Your task to perform on an android device: Check the news Image 0: 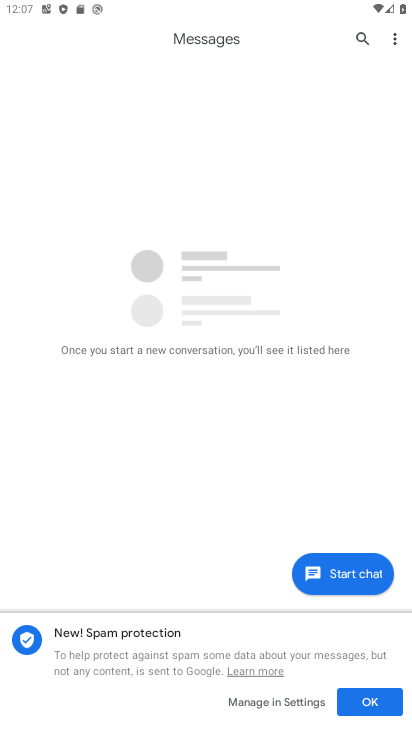
Step 0: press back button
Your task to perform on an android device: Check the news Image 1: 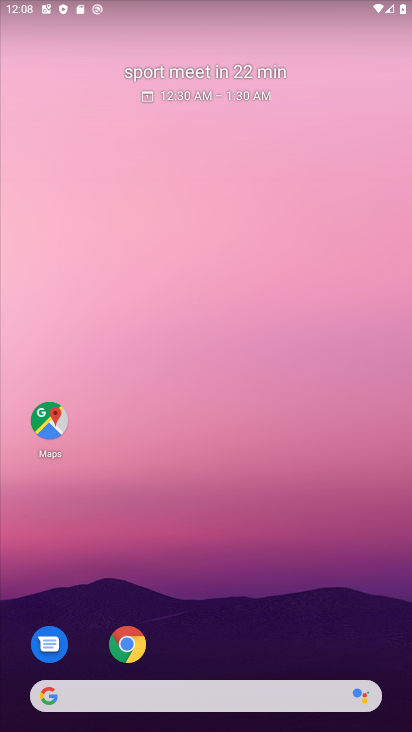
Step 1: click (176, 693)
Your task to perform on an android device: Check the news Image 2: 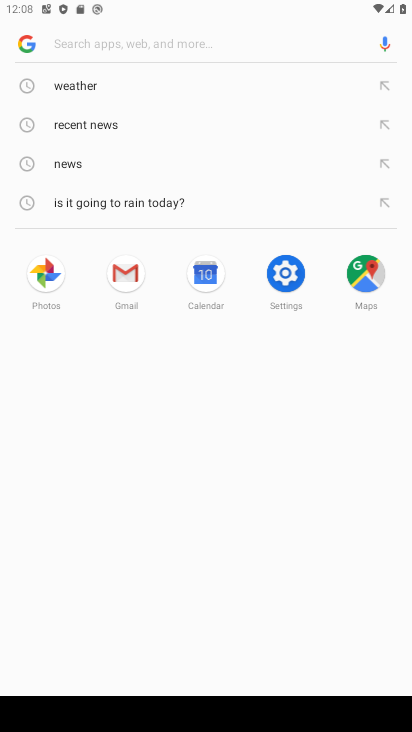
Step 2: click (80, 122)
Your task to perform on an android device: Check the news Image 3: 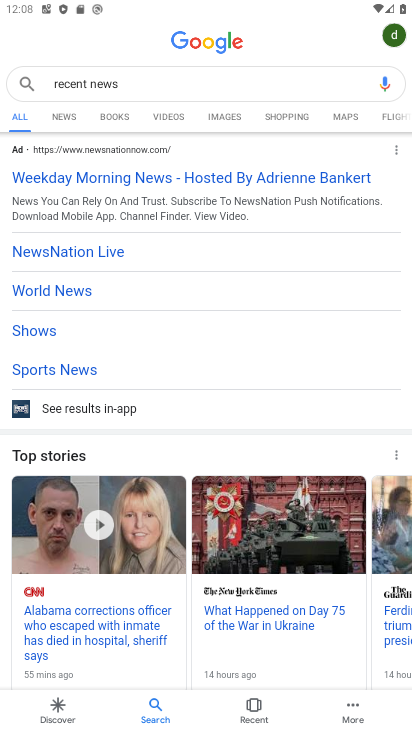
Step 3: task complete